Your task to perform on an android device: toggle location history Image 0: 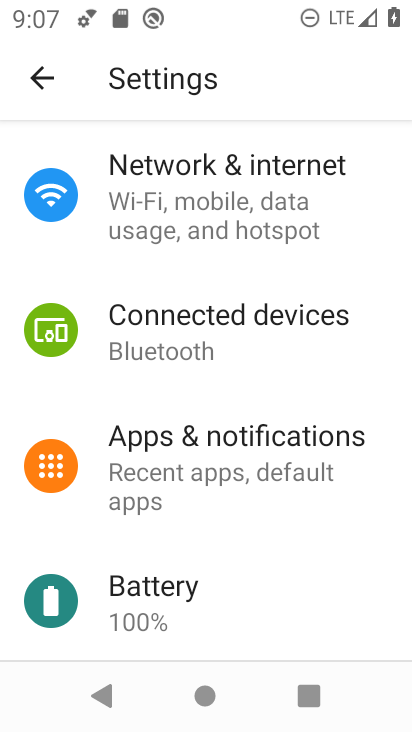
Step 0: drag from (278, 551) to (281, 224)
Your task to perform on an android device: toggle location history Image 1: 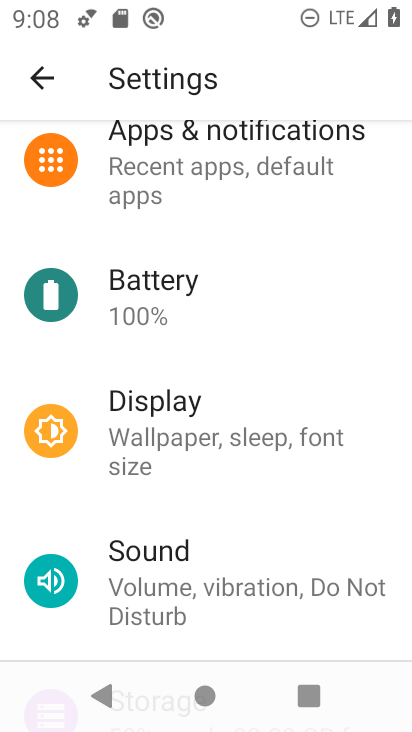
Step 1: drag from (306, 603) to (281, 259)
Your task to perform on an android device: toggle location history Image 2: 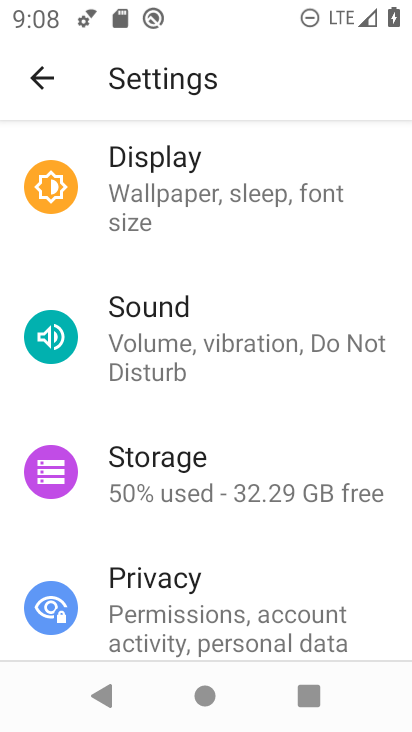
Step 2: drag from (270, 603) to (245, 342)
Your task to perform on an android device: toggle location history Image 3: 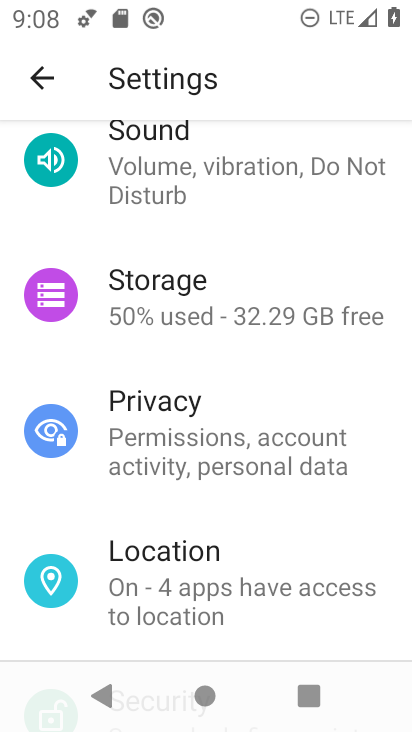
Step 3: click (182, 562)
Your task to perform on an android device: toggle location history Image 4: 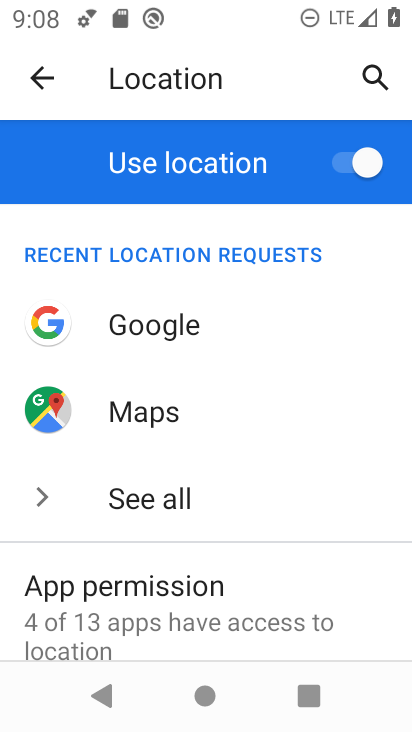
Step 4: drag from (331, 606) to (221, 218)
Your task to perform on an android device: toggle location history Image 5: 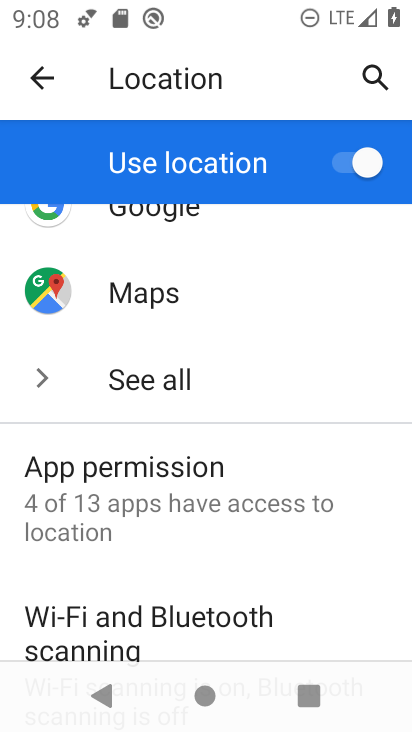
Step 5: drag from (335, 620) to (346, 343)
Your task to perform on an android device: toggle location history Image 6: 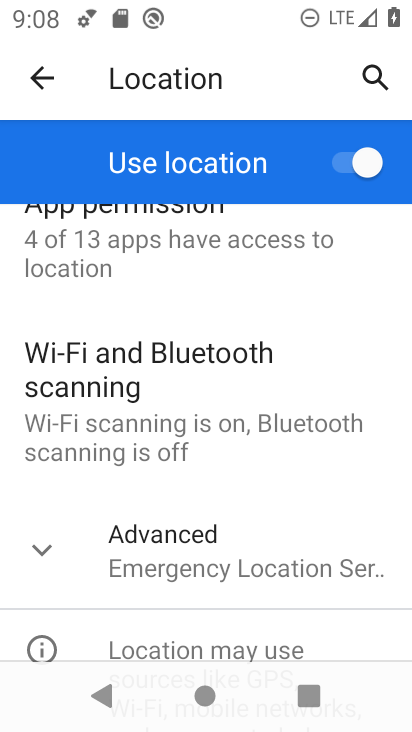
Step 6: click (43, 547)
Your task to perform on an android device: toggle location history Image 7: 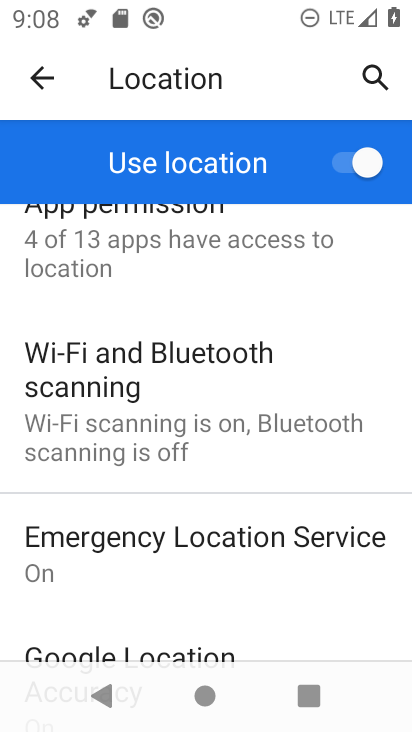
Step 7: drag from (257, 627) to (257, 449)
Your task to perform on an android device: toggle location history Image 8: 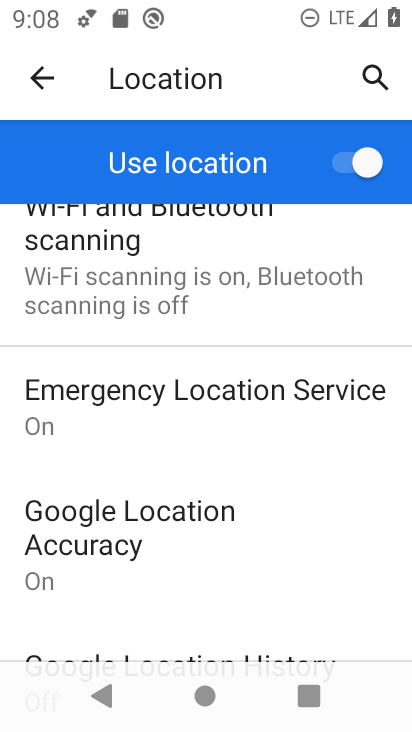
Step 8: drag from (265, 624) to (238, 284)
Your task to perform on an android device: toggle location history Image 9: 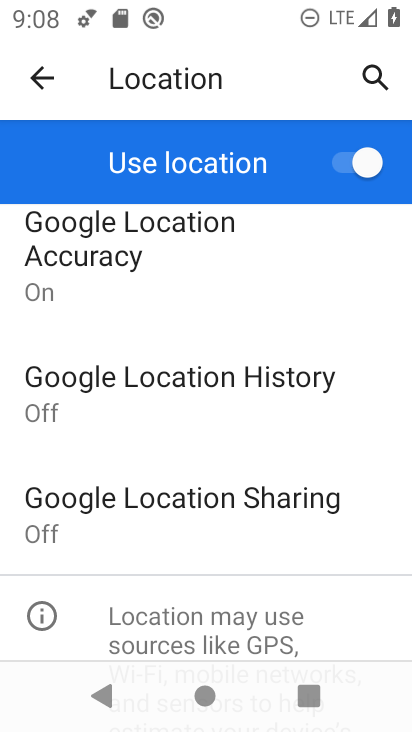
Step 9: click (110, 378)
Your task to perform on an android device: toggle location history Image 10: 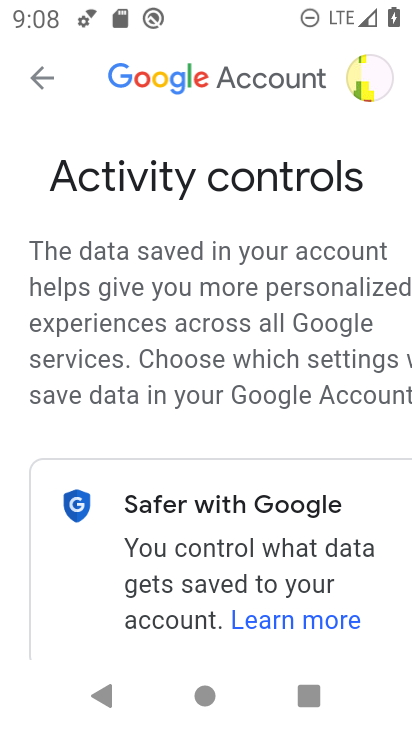
Step 10: drag from (278, 588) to (237, 83)
Your task to perform on an android device: toggle location history Image 11: 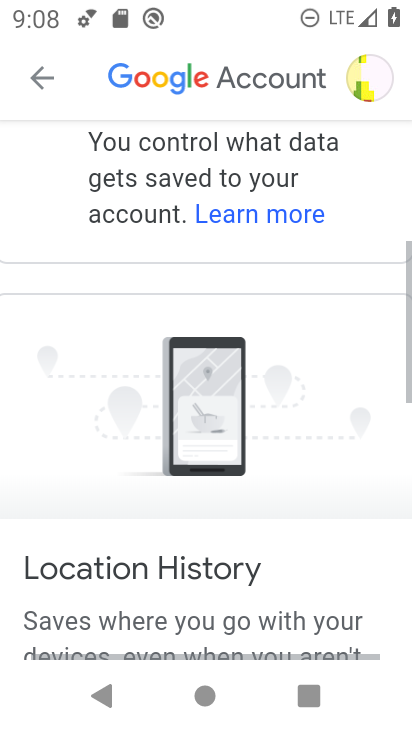
Step 11: click (237, 83)
Your task to perform on an android device: toggle location history Image 12: 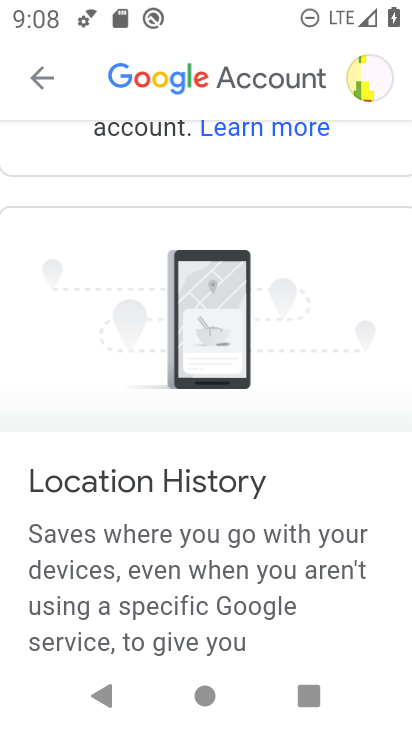
Step 12: drag from (335, 573) to (325, 280)
Your task to perform on an android device: toggle location history Image 13: 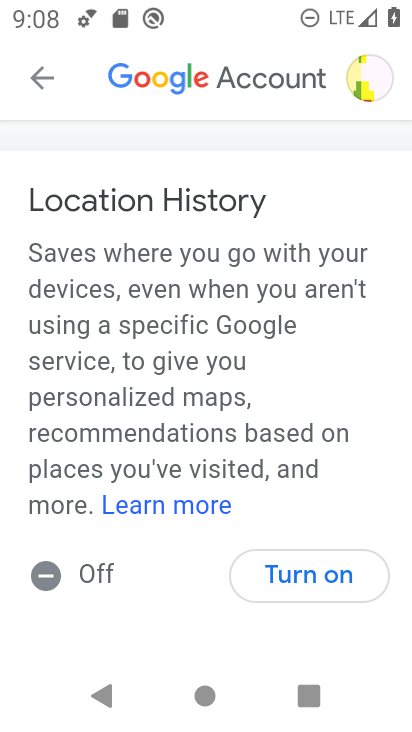
Step 13: click (308, 581)
Your task to perform on an android device: toggle location history Image 14: 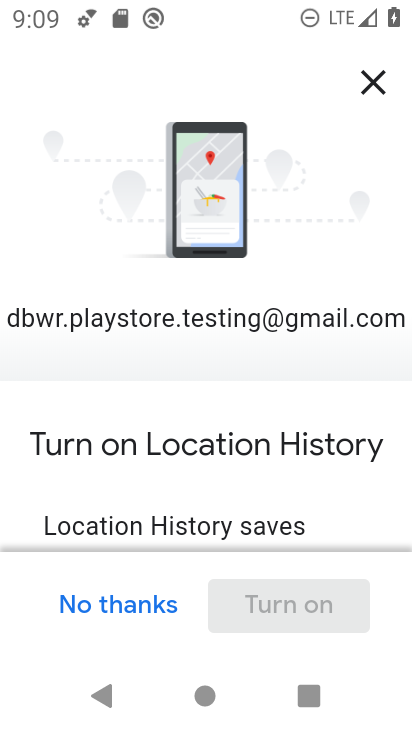
Step 14: drag from (286, 529) to (257, 88)
Your task to perform on an android device: toggle location history Image 15: 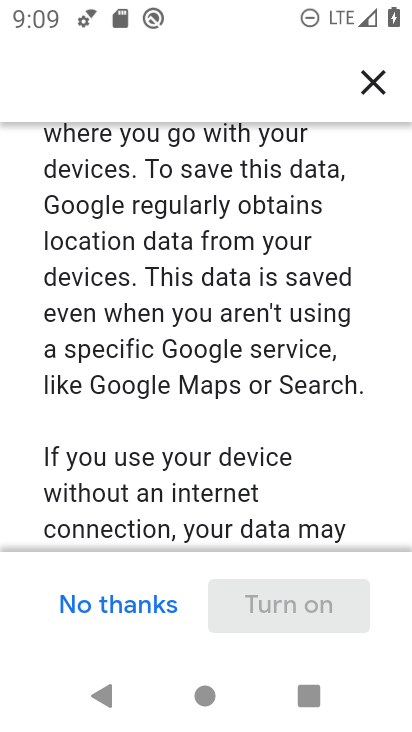
Step 15: drag from (261, 519) to (241, 214)
Your task to perform on an android device: toggle location history Image 16: 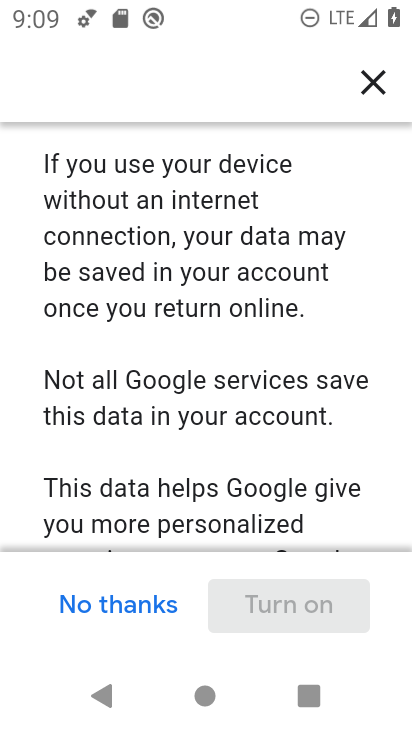
Step 16: drag from (286, 513) to (232, 206)
Your task to perform on an android device: toggle location history Image 17: 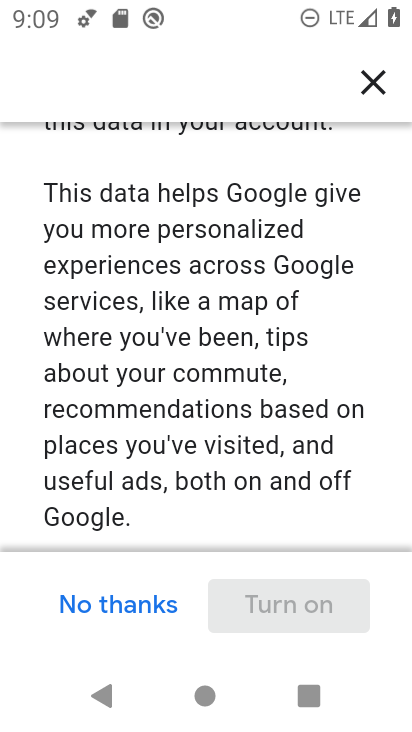
Step 17: drag from (255, 525) to (225, 99)
Your task to perform on an android device: toggle location history Image 18: 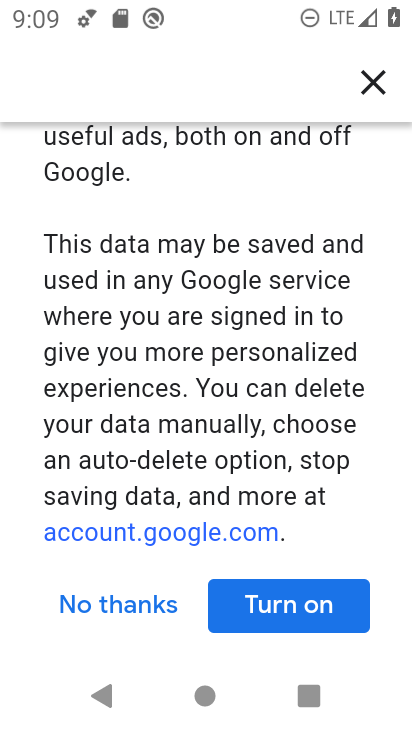
Step 18: click (288, 613)
Your task to perform on an android device: toggle location history Image 19: 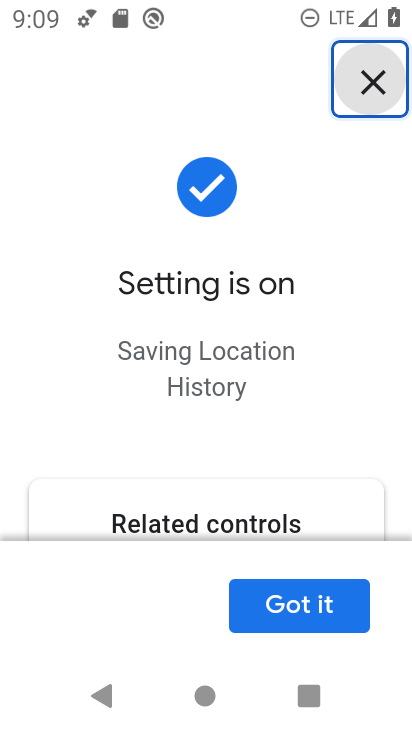
Step 19: click (295, 606)
Your task to perform on an android device: toggle location history Image 20: 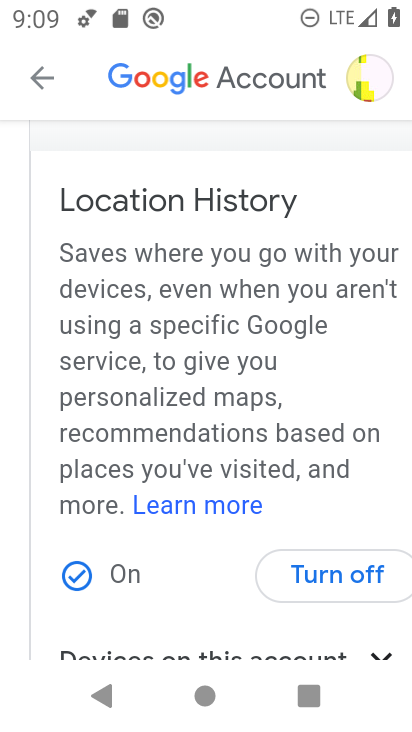
Step 20: task complete